Your task to perform on an android device: choose inbox layout in the gmail app Image 0: 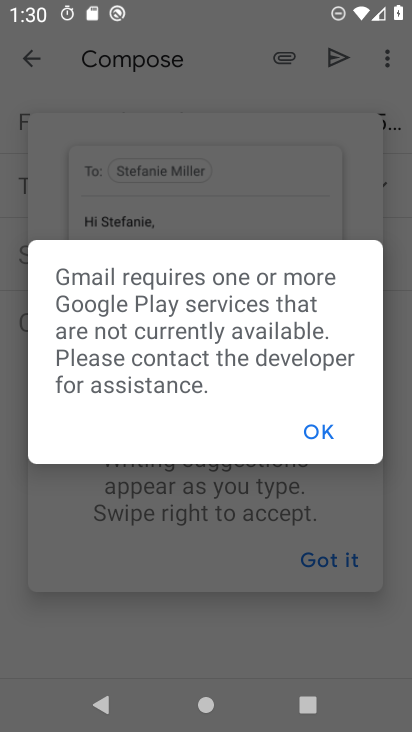
Step 0: press home button
Your task to perform on an android device: choose inbox layout in the gmail app Image 1: 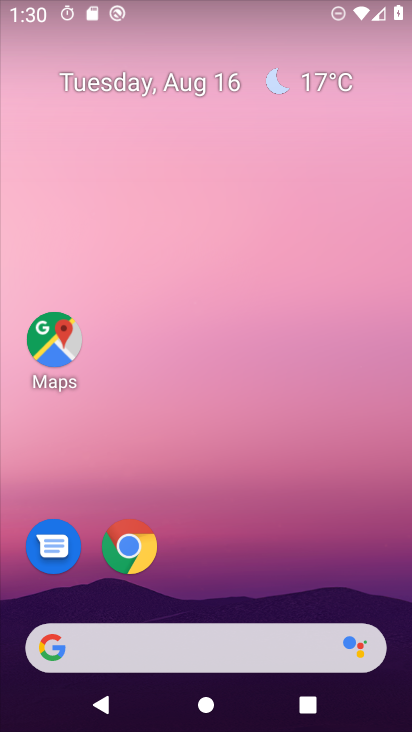
Step 1: drag from (220, 613) to (196, 106)
Your task to perform on an android device: choose inbox layout in the gmail app Image 2: 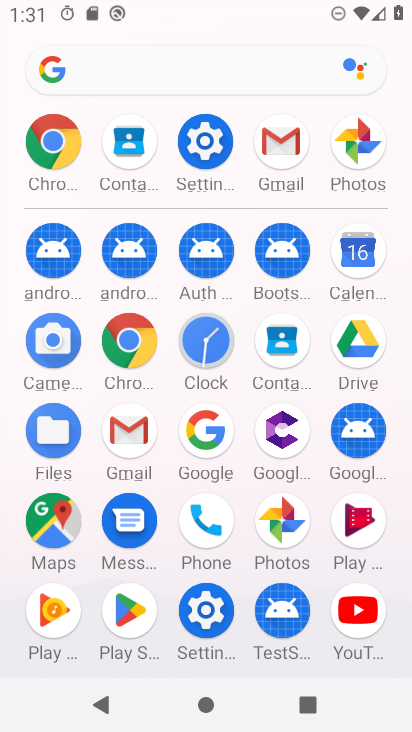
Step 2: click (204, 136)
Your task to perform on an android device: choose inbox layout in the gmail app Image 3: 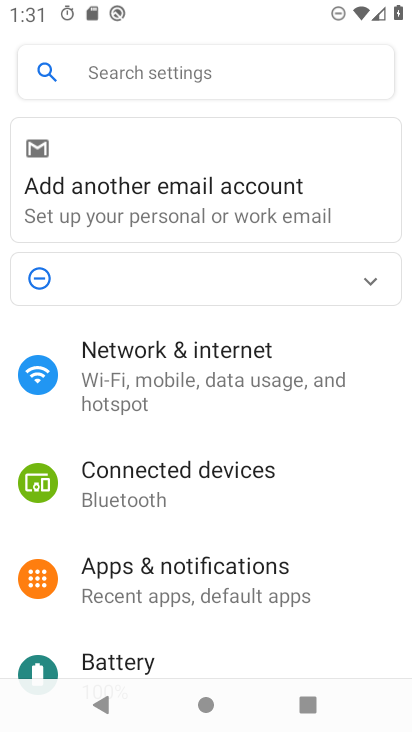
Step 3: press home button
Your task to perform on an android device: choose inbox layout in the gmail app Image 4: 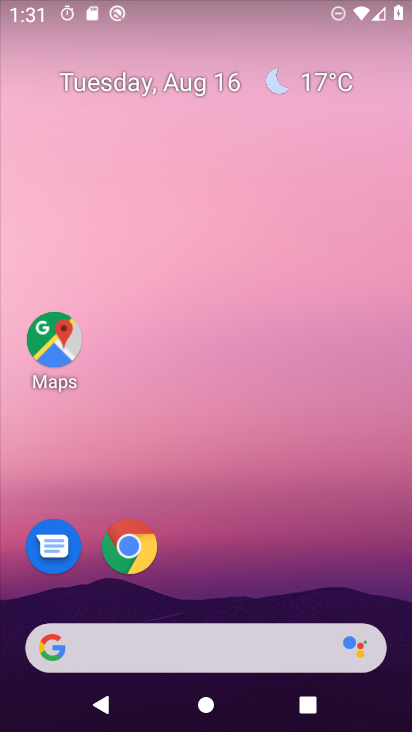
Step 4: drag from (231, 606) to (167, 79)
Your task to perform on an android device: choose inbox layout in the gmail app Image 5: 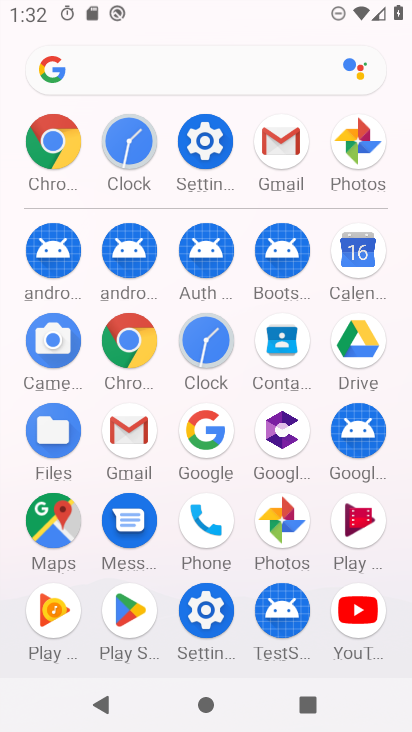
Step 5: click (291, 146)
Your task to perform on an android device: choose inbox layout in the gmail app Image 6: 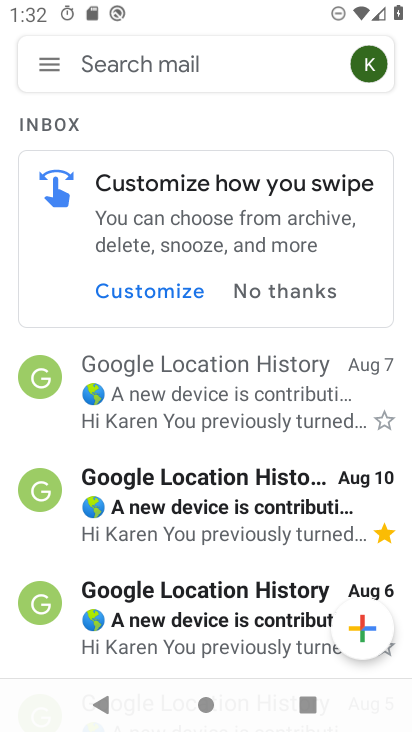
Step 6: click (51, 59)
Your task to perform on an android device: choose inbox layout in the gmail app Image 7: 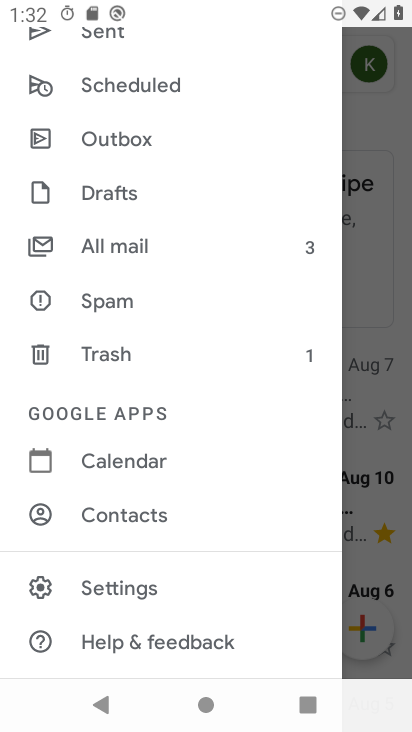
Step 7: click (121, 579)
Your task to perform on an android device: choose inbox layout in the gmail app Image 8: 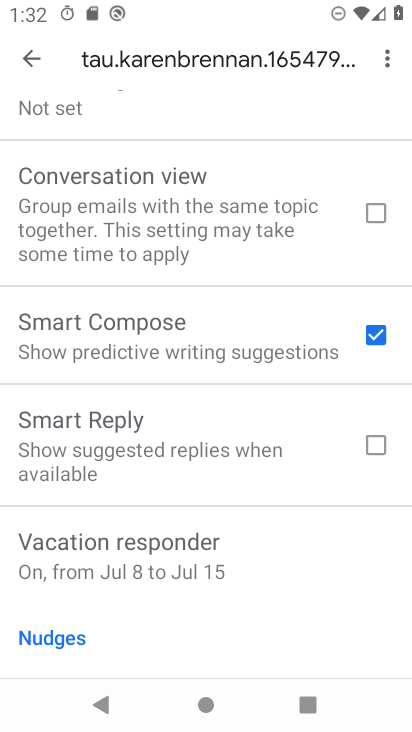
Step 8: drag from (187, 145) to (166, 604)
Your task to perform on an android device: choose inbox layout in the gmail app Image 9: 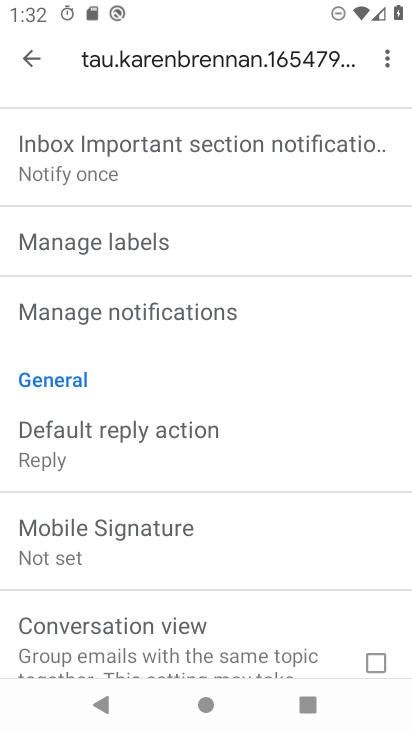
Step 9: drag from (206, 136) to (179, 593)
Your task to perform on an android device: choose inbox layout in the gmail app Image 10: 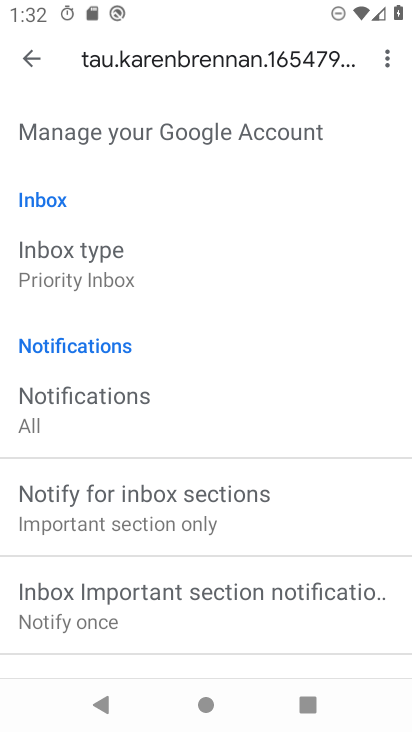
Step 10: click (167, 221)
Your task to perform on an android device: choose inbox layout in the gmail app Image 11: 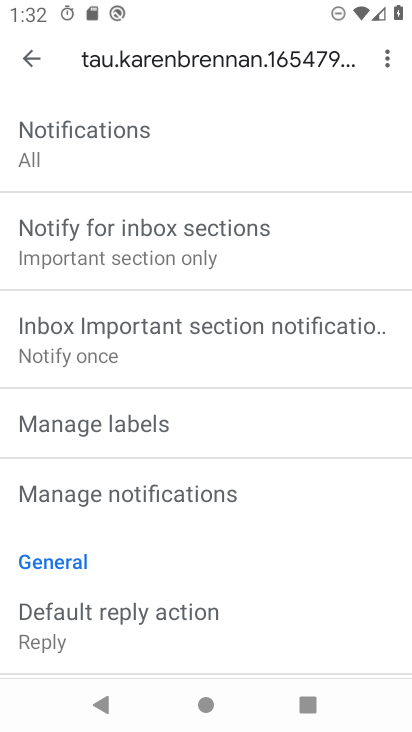
Step 11: drag from (191, 175) to (179, 561)
Your task to perform on an android device: choose inbox layout in the gmail app Image 12: 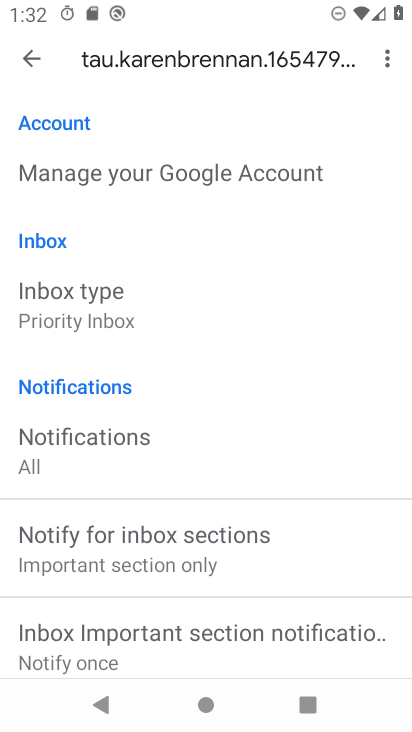
Step 12: click (63, 311)
Your task to perform on an android device: choose inbox layout in the gmail app Image 13: 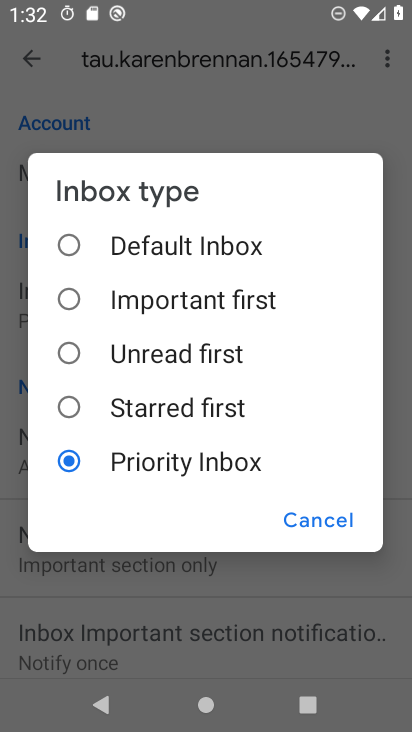
Step 13: click (67, 236)
Your task to perform on an android device: choose inbox layout in the gmail app Image 14: 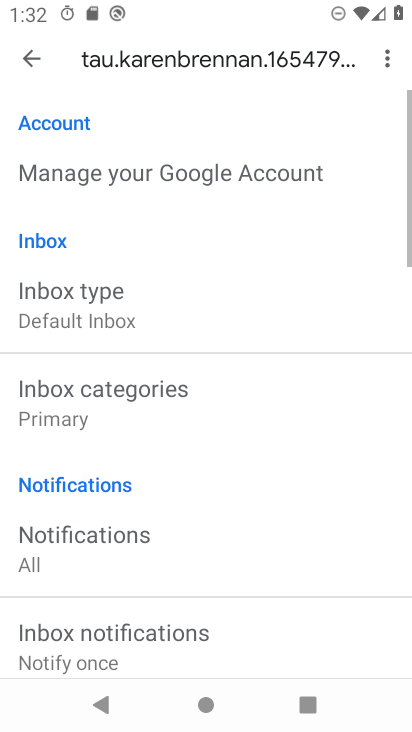
Step 14: task complete